Your task to perform on an android device: toggle data saver in the chrome app Image 0: 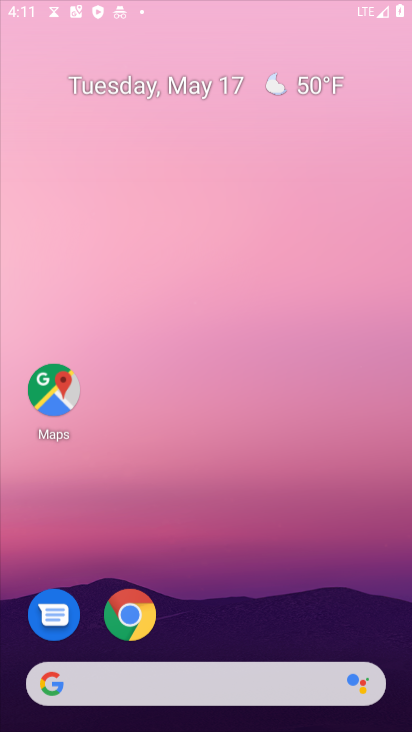
Step 0: press back button
Your task to perform on an android device: toggle data saver in the chrome app Image 1: 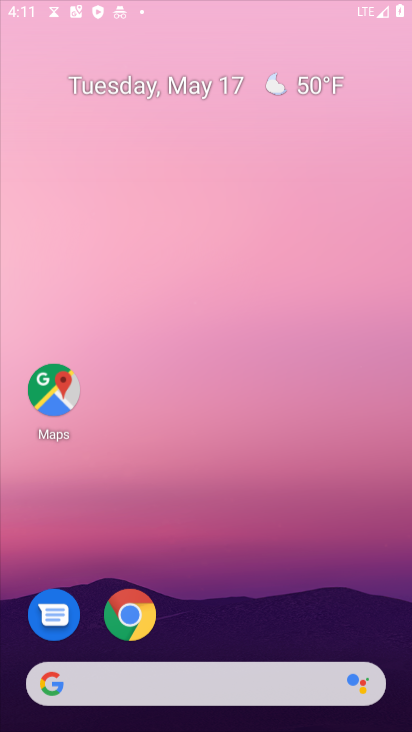
Step 1: click (257, 82)
Your task to perform on an android device: toggle data saver in the chrome app Image 2: 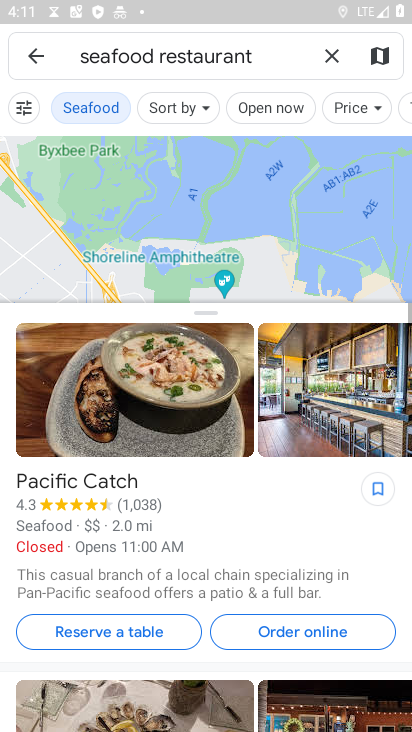
Step 2: drag from (251, 700) to (179, 180)
Your task to perform on an android device: toggle data saver in the chrome app Image 3: 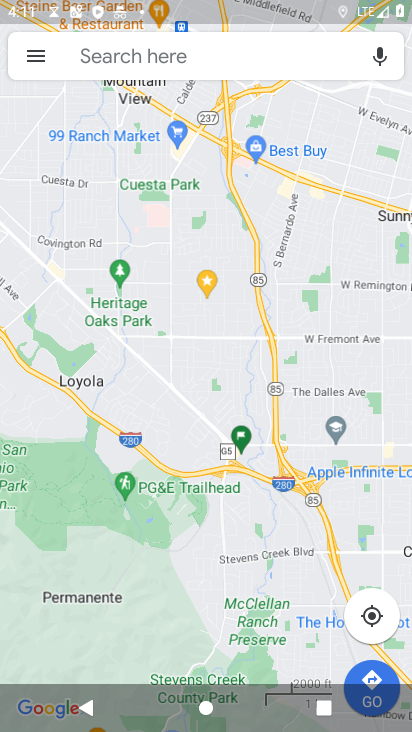
Step 3: press home button
Your task to perform on an android device: toggle data saver in the chrome app Image 4: 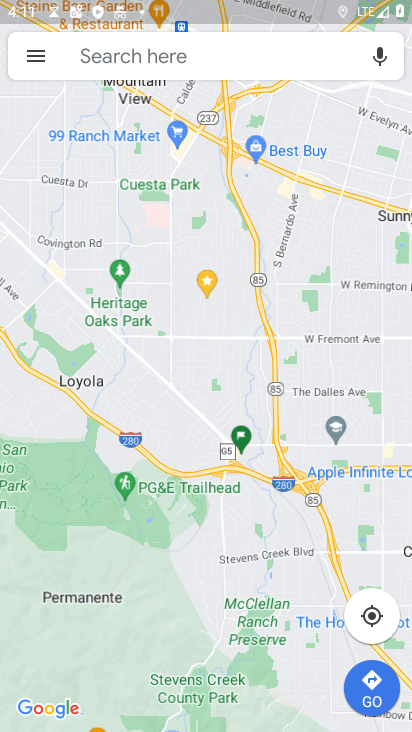
Step 4: press home button
Your task to perform on an android device: toggle data saver in the chrome app Image 5: 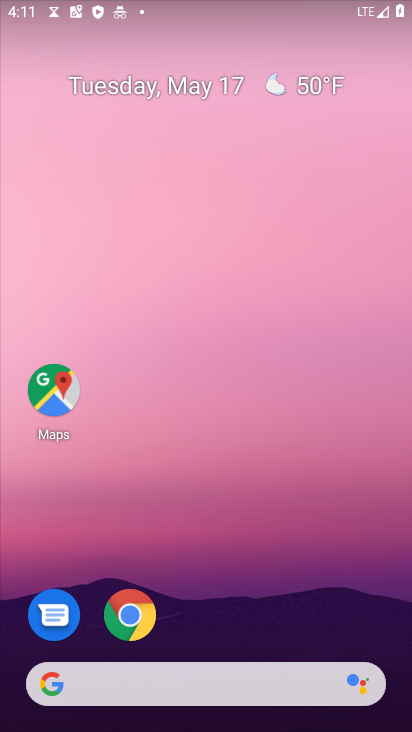
Step 5: drag from (274, 594) to (244, 155)
Your task to perform on an android device: toggle data saver in the chrome app Image 6: 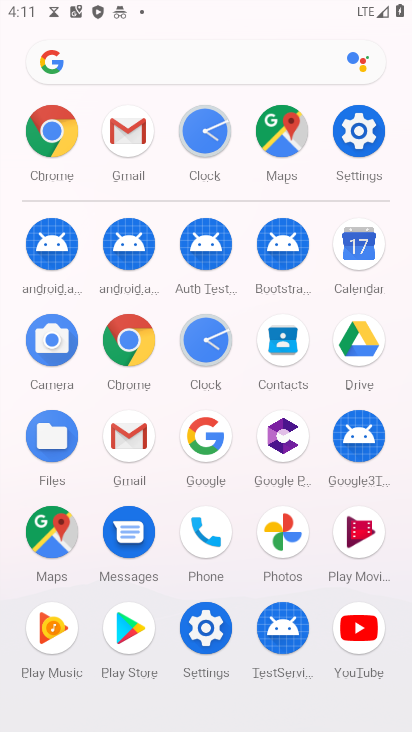
Step 6: click (47, 133)
Your task to perform on an android device: toggle data saver in the chrome app Image 7: 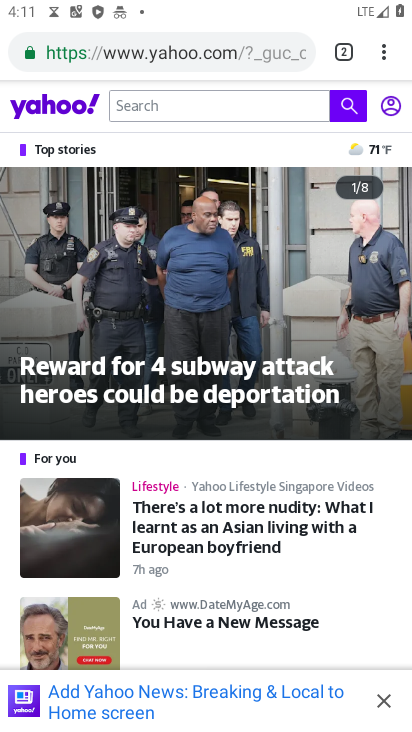
Step 7: click (377, 55)
Your task to perform on an android device: toggle data saver in the chrome app Image 8: 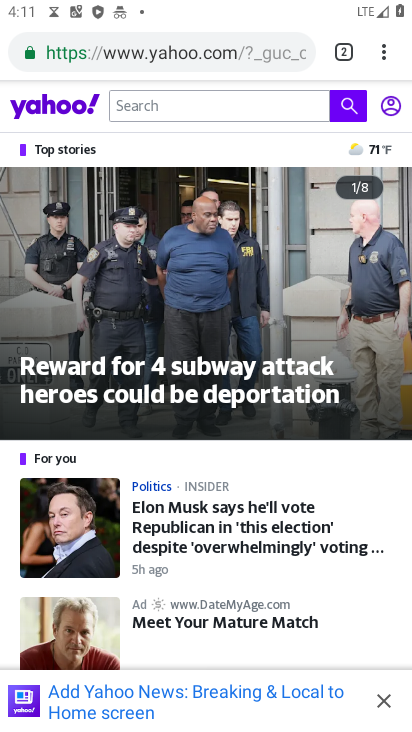
Step 8: drag from (383, 44) to (199, 626)
Your task to perform on an android device: toggle data saver in the chrome app Image 9: 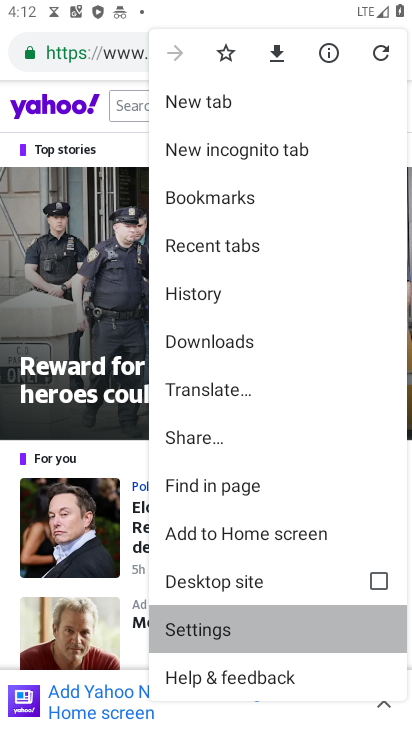
Step 9: click (199, 629)
Your task to perform on an android device: toggle data saver in the chrome app Image 10: 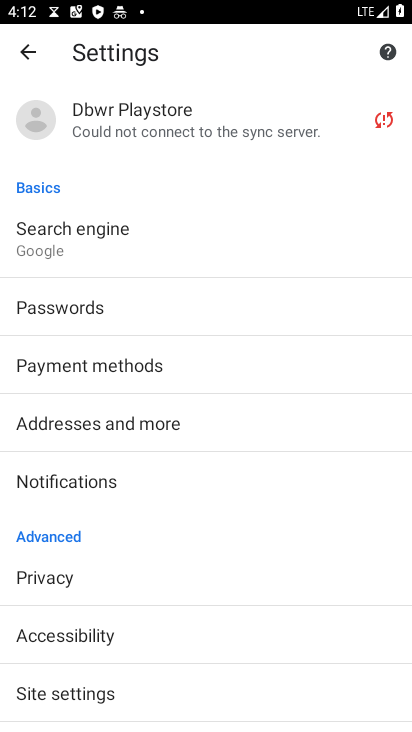
Step 10: drag from (77, 519) to (126, 175)
Your task to perform on an android device: toggle data saver in the chrome app Image 11: 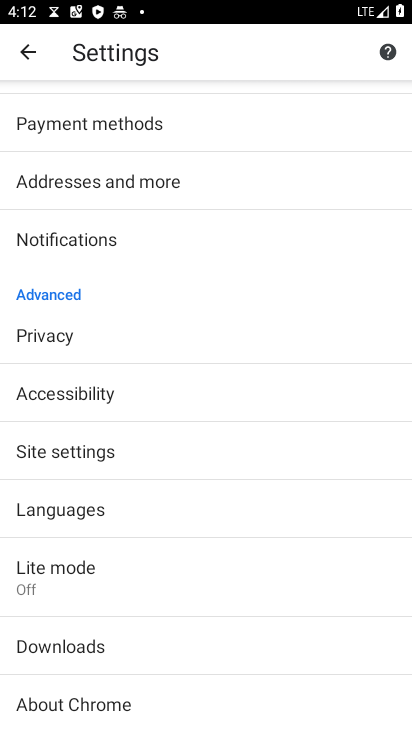
Step 11: click (48, 562)
Your task to perform on an android device: toggle data saver in the chrome app Image 12: 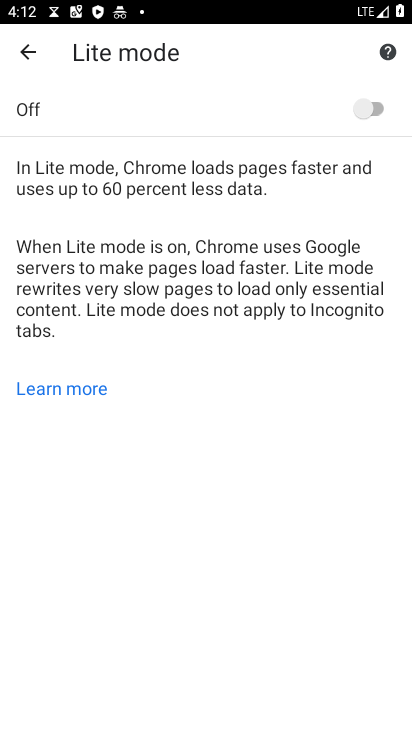
Step 12: click (365, 104)
Your task to perform on an android device: toggle data saver in the chrome app Image 13: 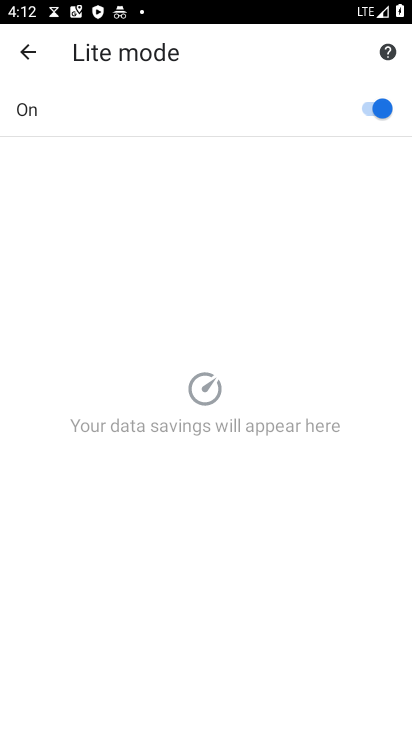
Step 13: task complete